Your task to perform on an android device: Search for sushi restaurants on Maps Image 0: 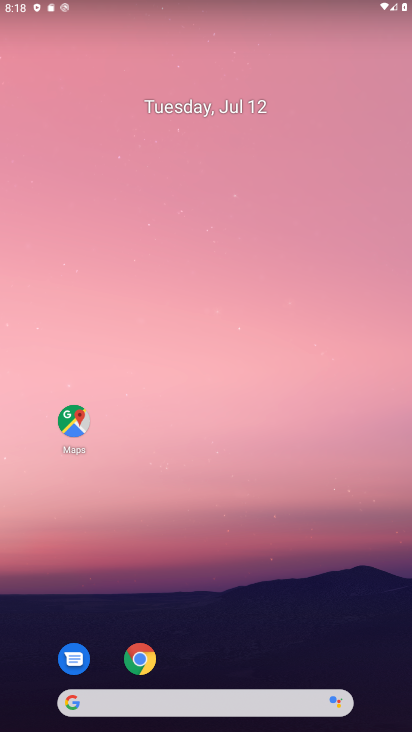
Step 0: click (72, 424)
Your task to perform on an android device: Search for sushi restaurants on Maps Image 1: 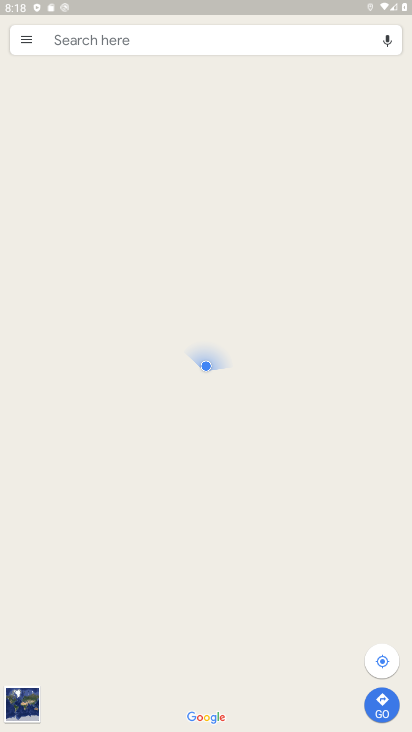
Step 1: click (209, 39)
Your task to perform on an android device: Search for sushi restaurants on Maps Image 2: 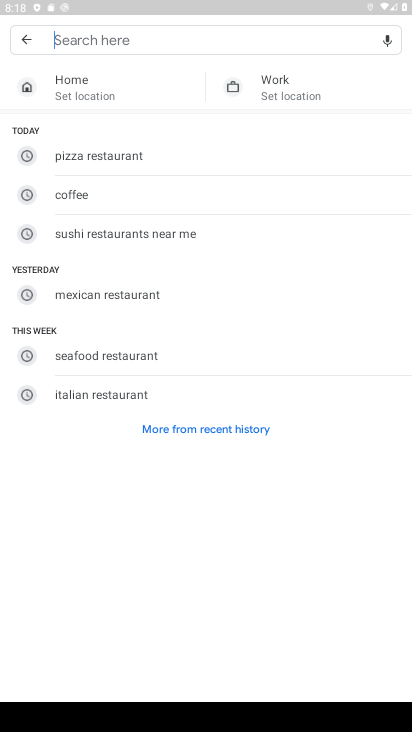
Step 2: type "sushi restaurants"
Your task to perform on an android device: Search for sushi restaurants on Maps Image 3: 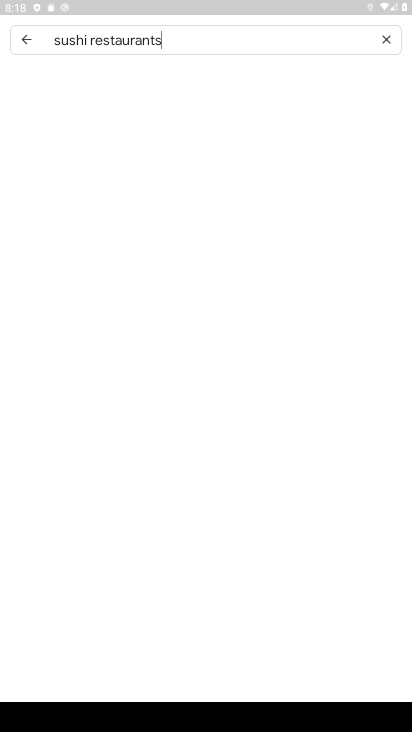
Step 3: type ""
Your task to perform on an android device: Search for sushi restaurants on Maps Image 4: 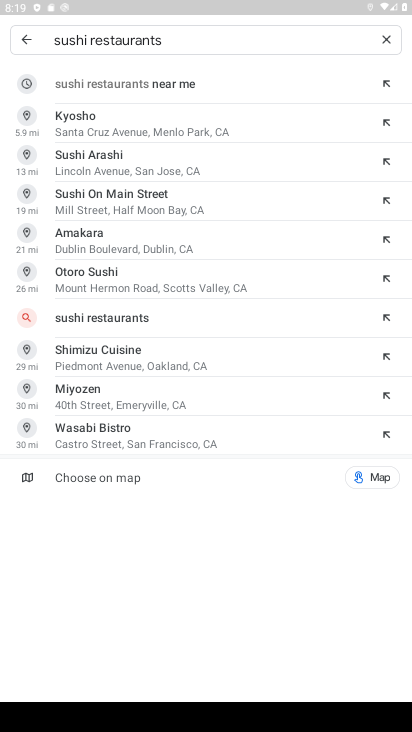
Step 4: click (111, 319)
Your task to perform on an android device: Search for sushi restaurants on Maps Image 5: 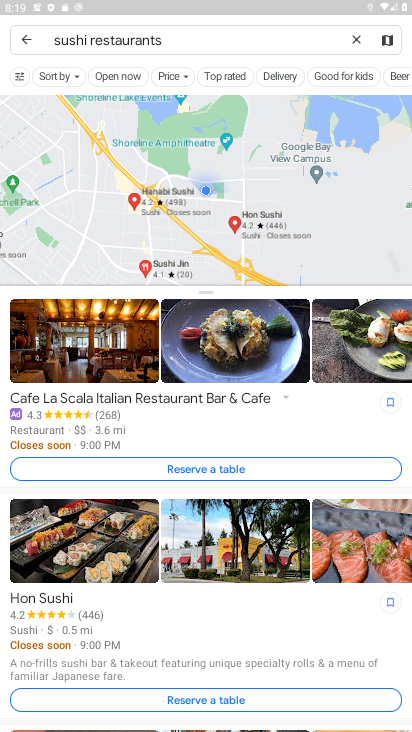
Step 5: task complete